Your task to perform on an android device: turn off translation in the chrome app Image 0: 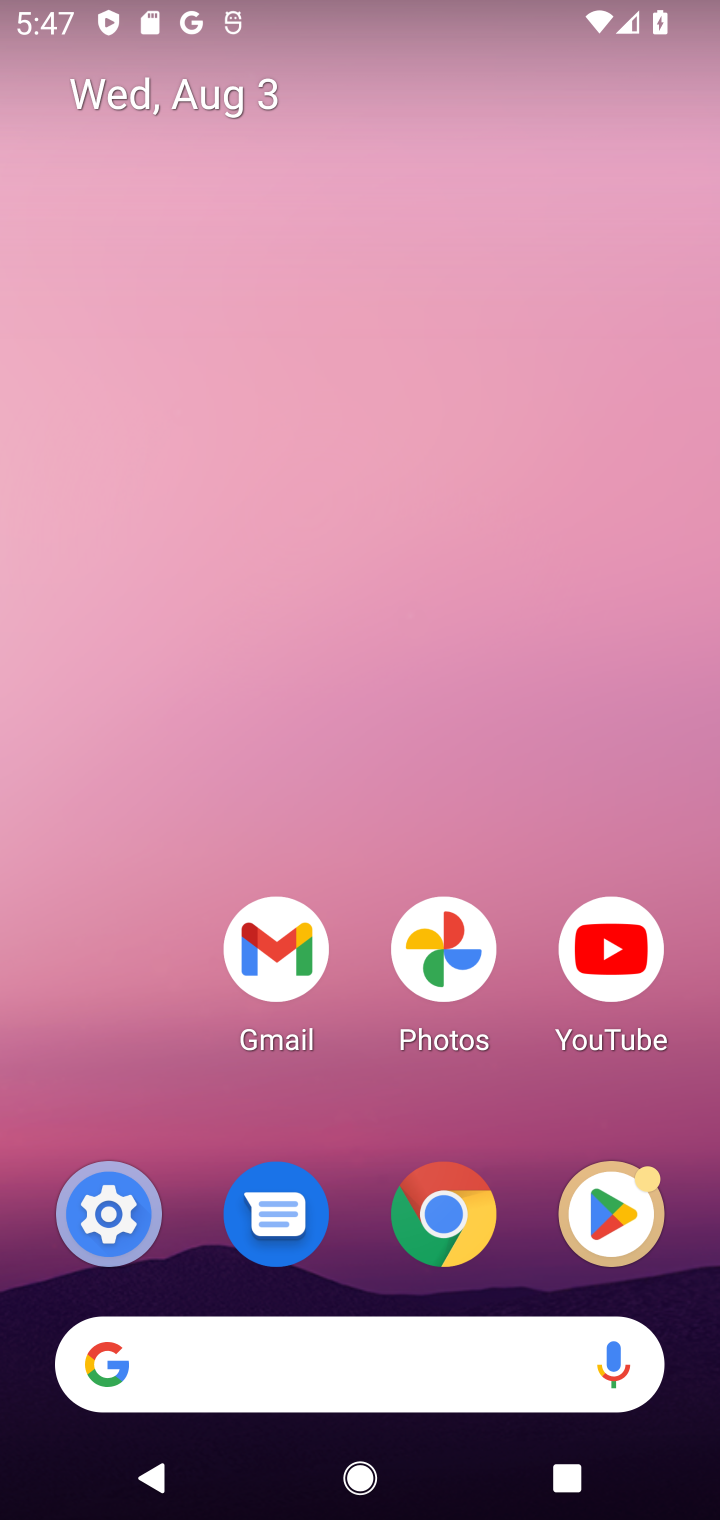
Step 0: click (473, 1208)
Your task to perform on an android device: turn off translation in the chrome app Image 1: 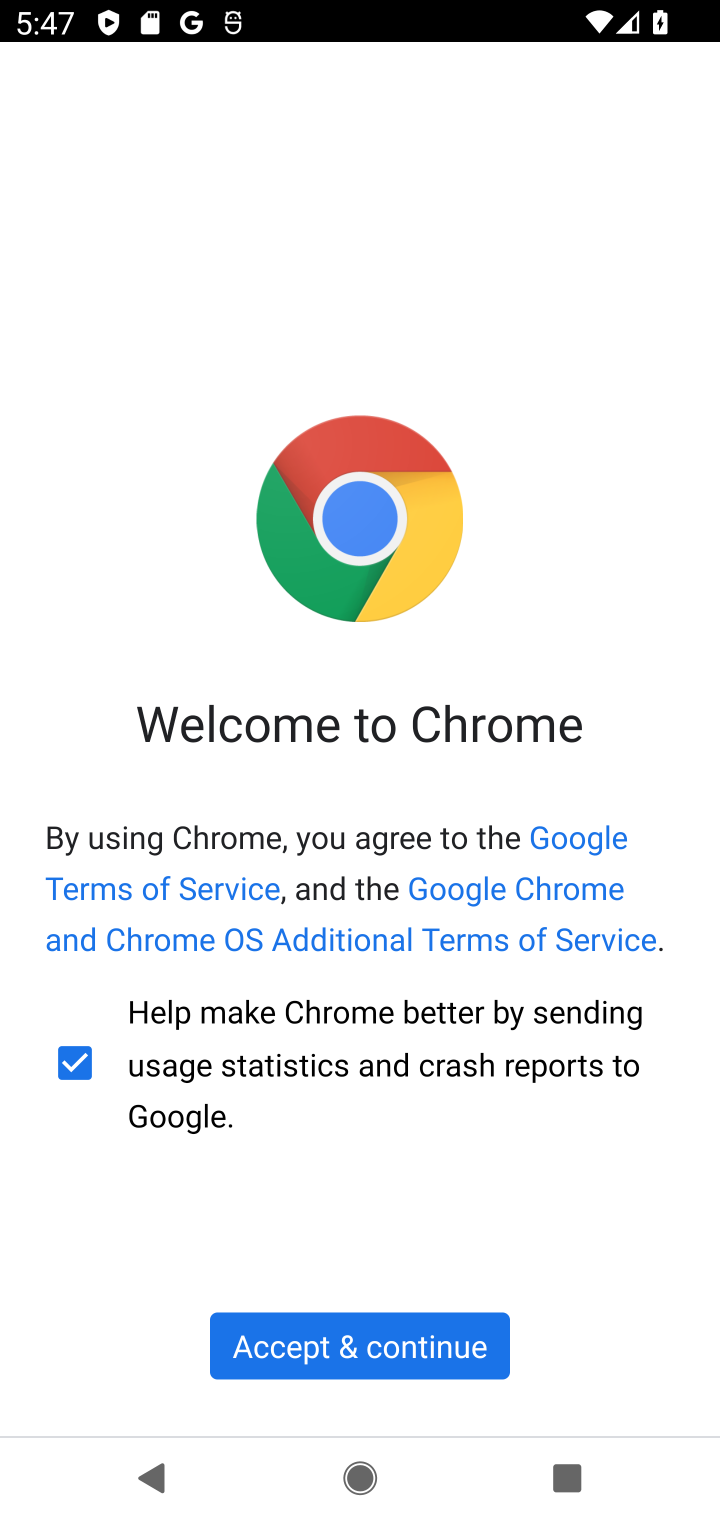
Step 1: click (372, 1357)
Your task to perform on an android device: turn off translation in the chrome app Image 2: 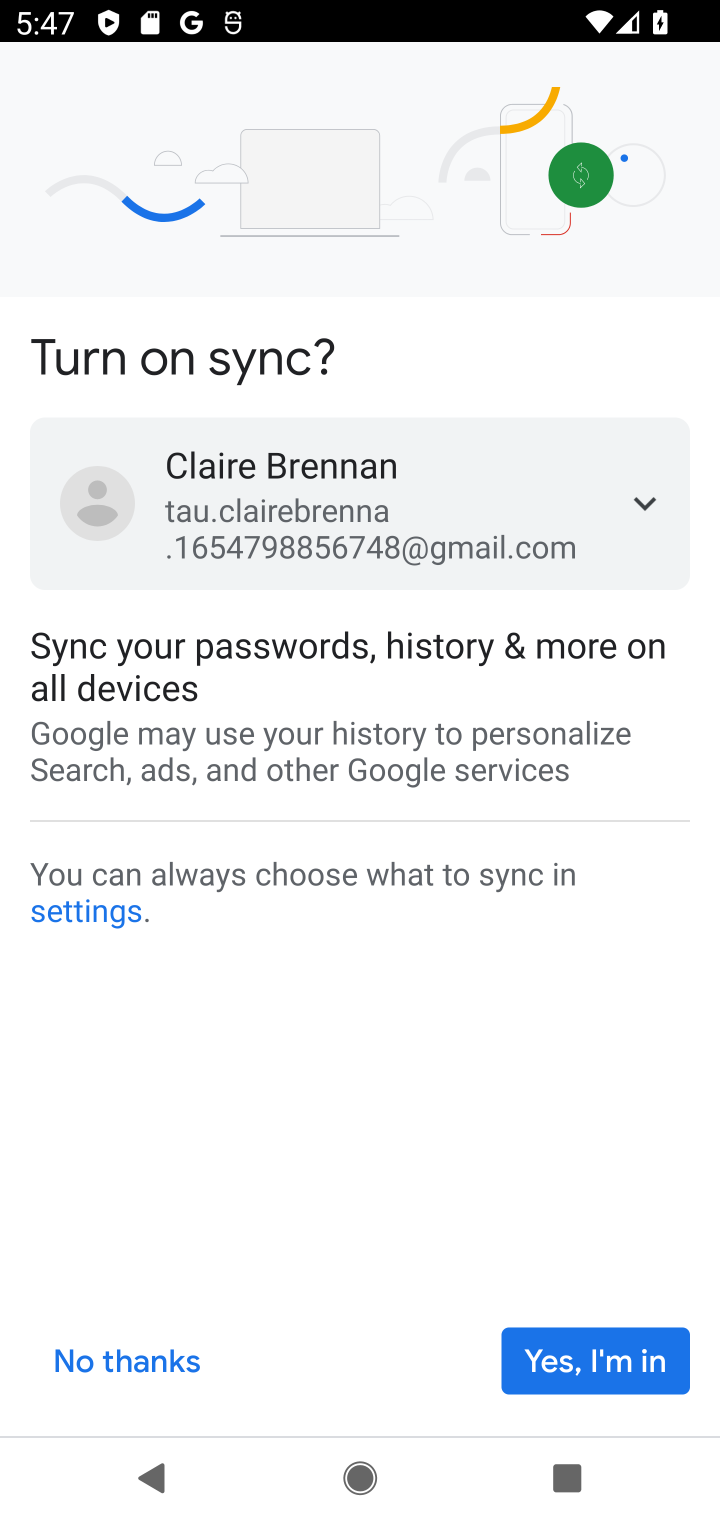
Step 2: click (555, 1362)
Your task to perform on an android device: turn off translation in the chrome app Image 3: 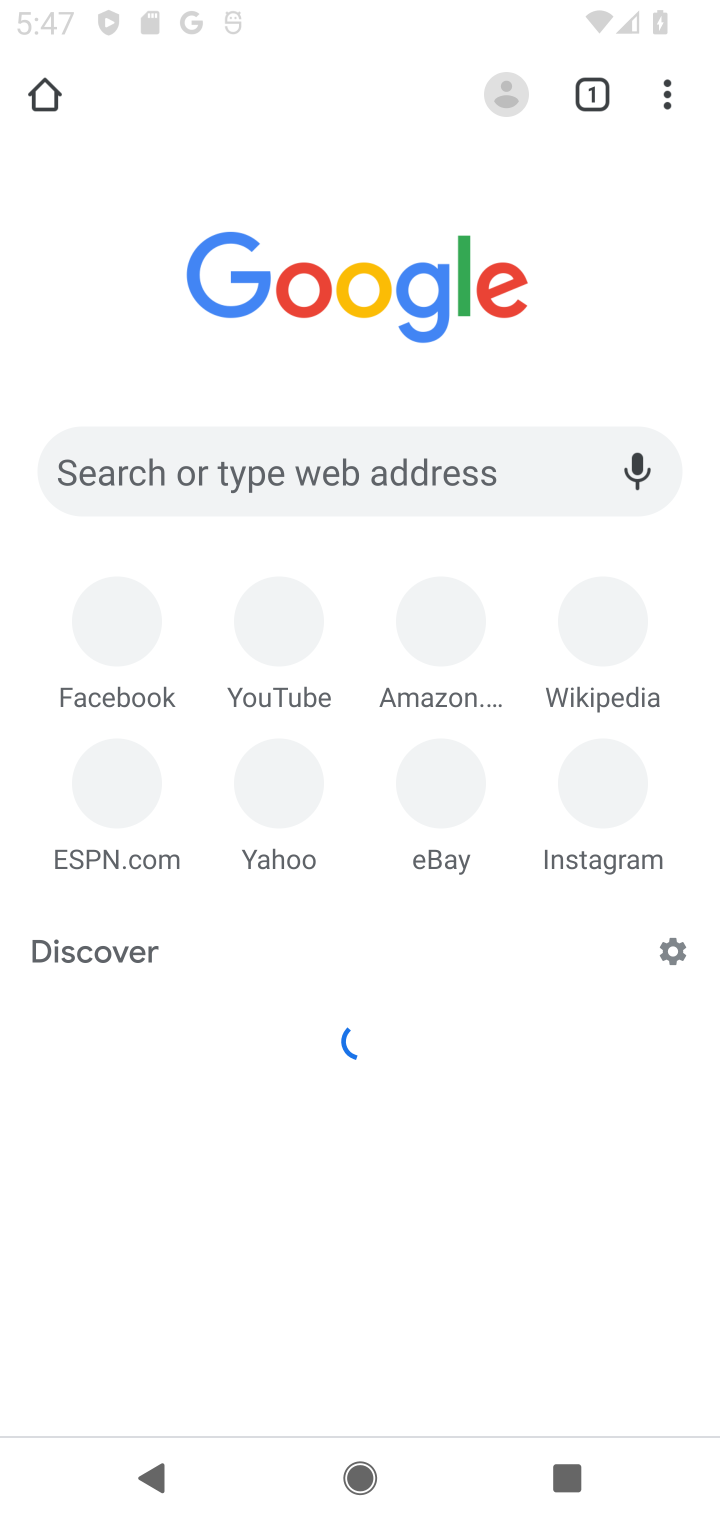
Step 3: click (555, 1362)
Your task to perform on an android device: turn off translation in the chrome app Image 4: 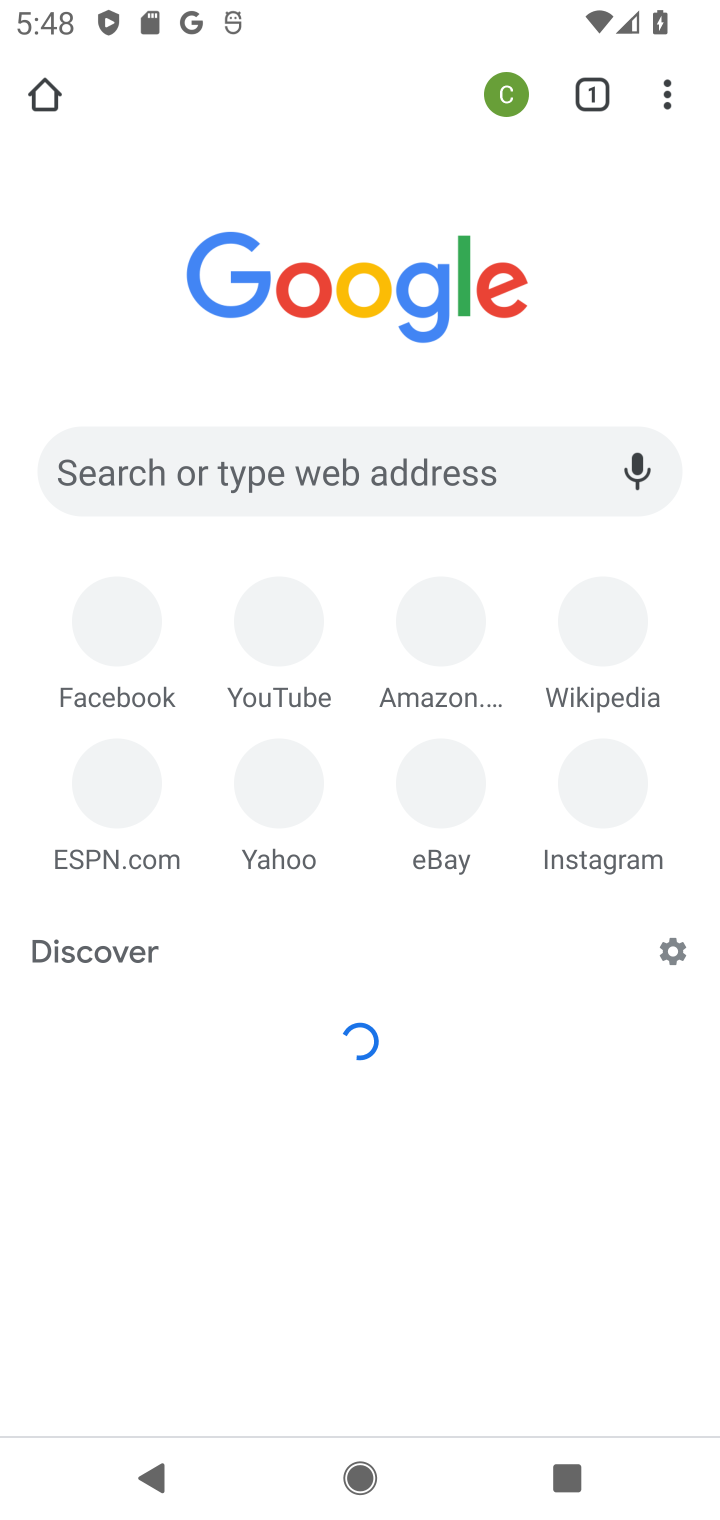
Step 4: click (672, 92)
Your task to perform on an android device: turn off translation in the chrome app Image 5: 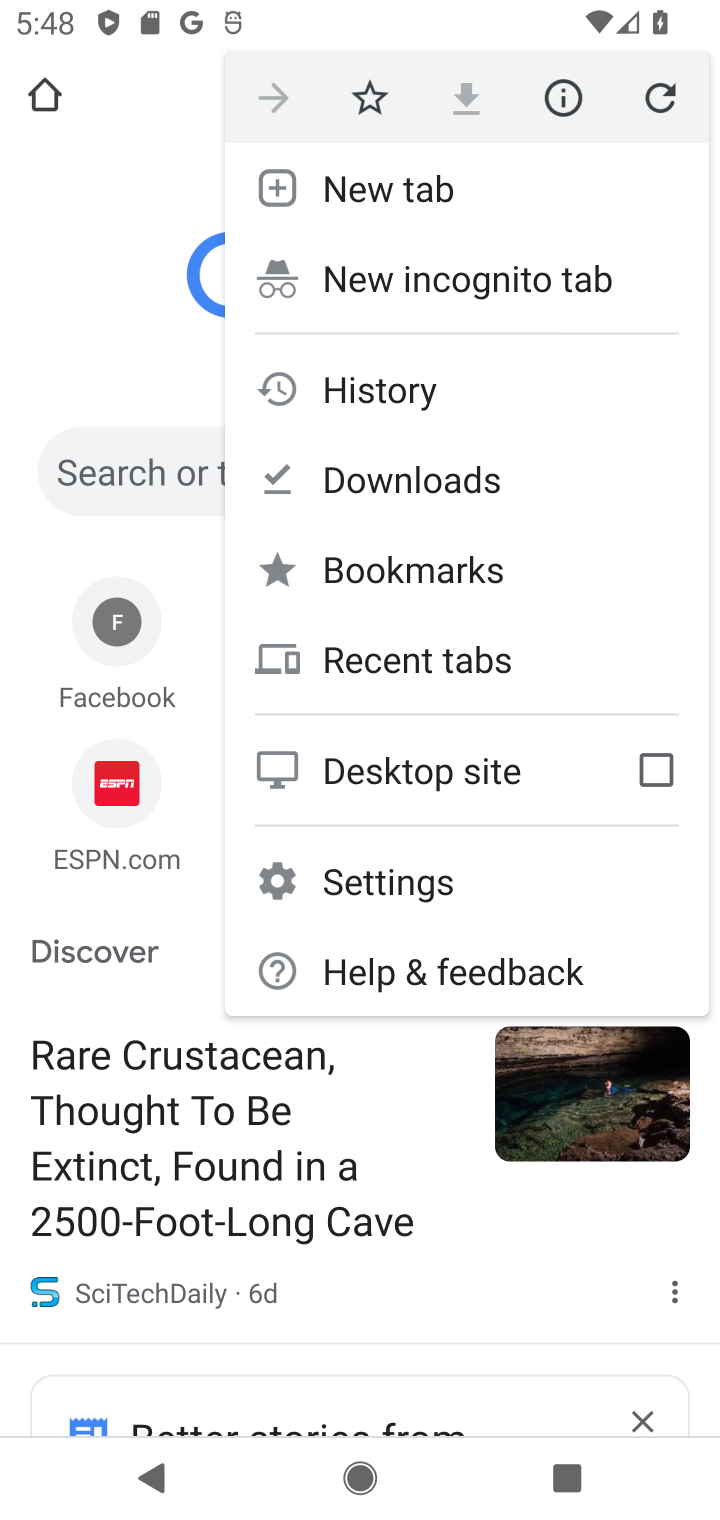
Step 5: click (373, 873)
Your task to perform on an android device: turn off translation in the chrome app Image 6: 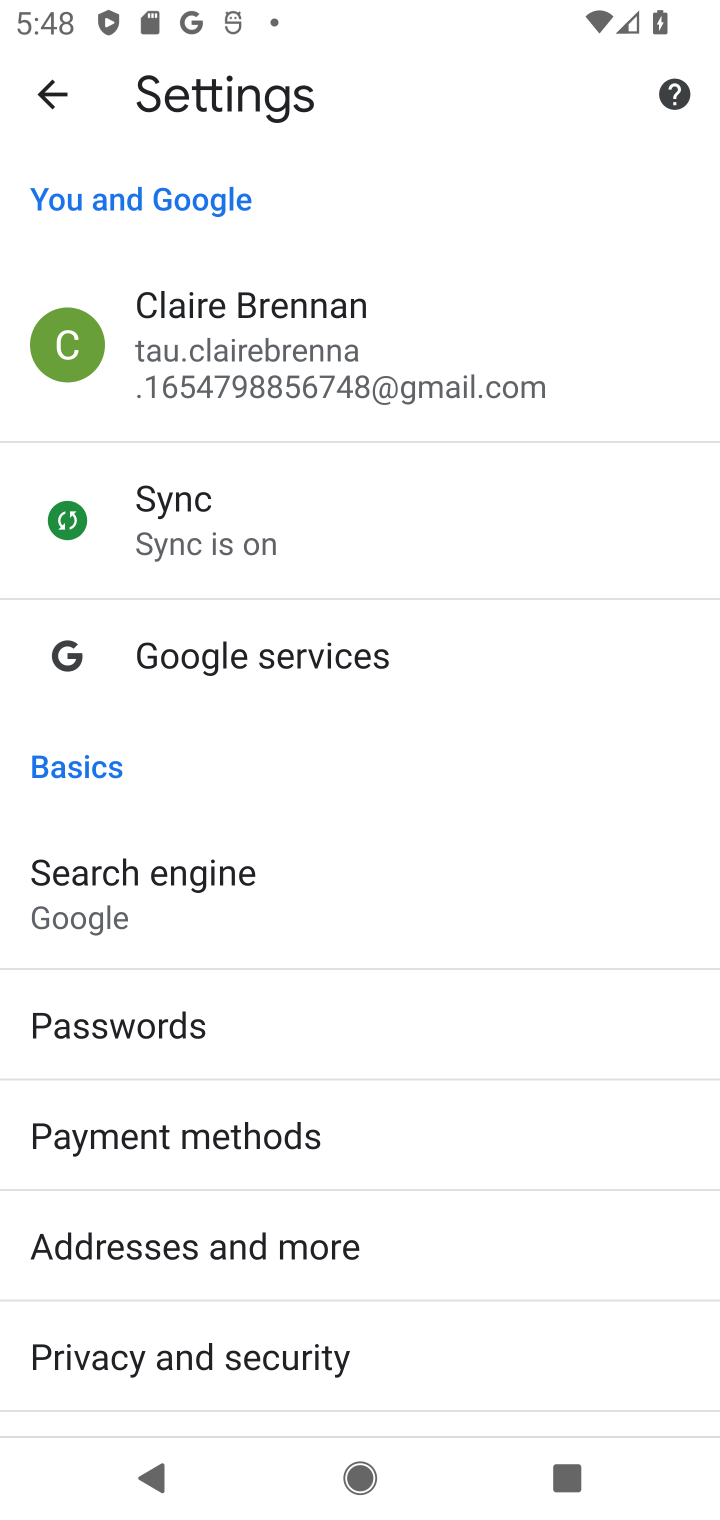
Step 6: drag from (224, 1309) to (206, 679)
Your task to perform on an android device: turn off translation in the chrome app Image 7: 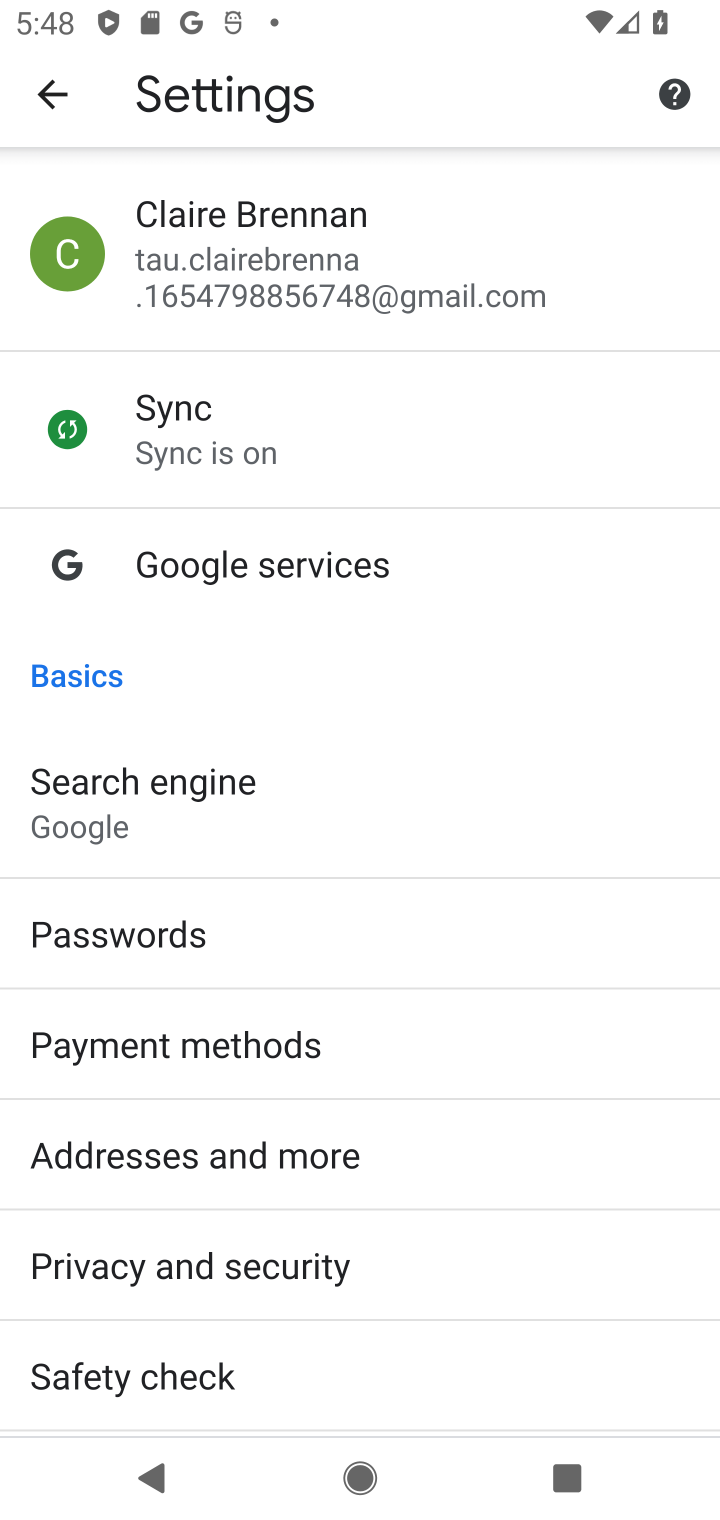
Step 7: drag from (240, 729) to (232, 623)
Your task to perform on an android device: turn off translation in the chrome app Image 8: 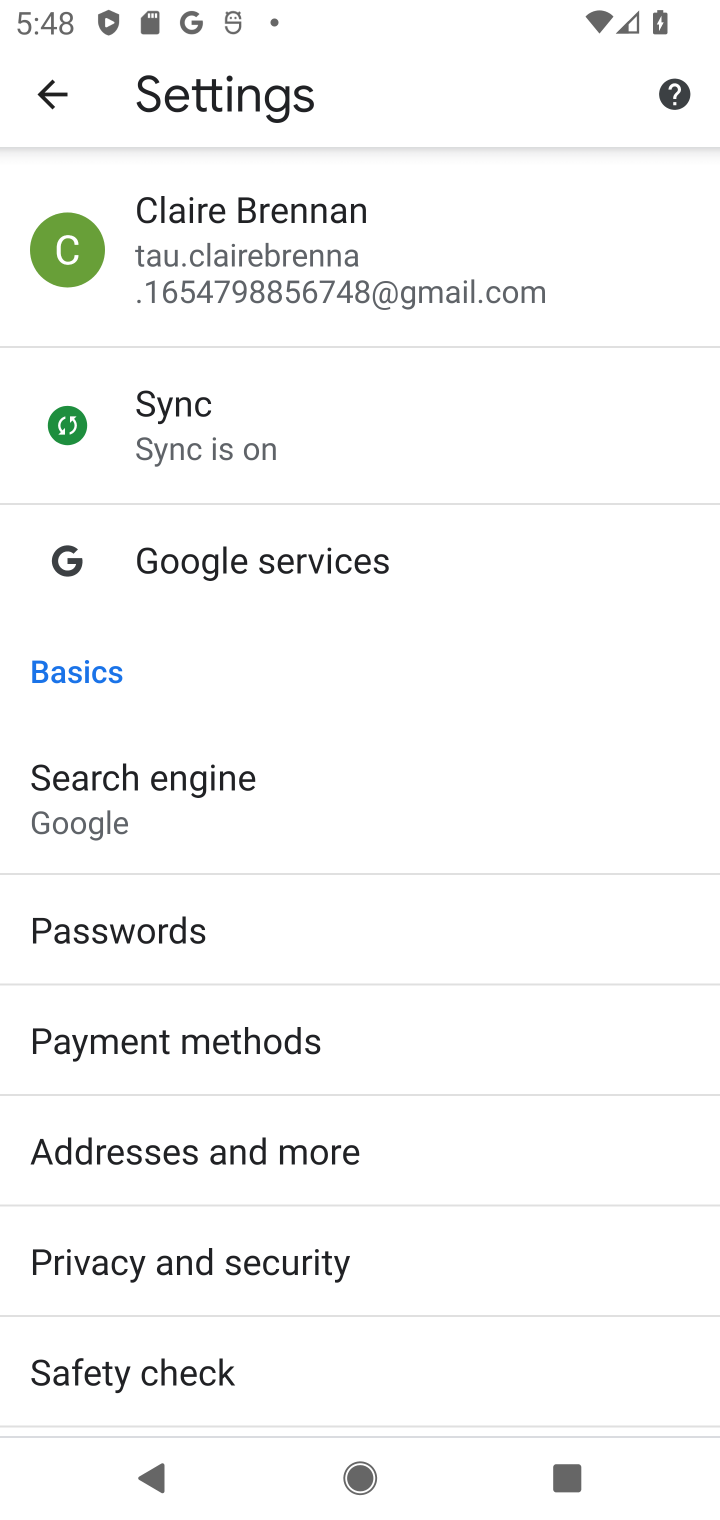
Step 8: drag from (264, 1382) to (173, 707)
Your task to perform on an android device: turn off translation in the chrome app Image 9: 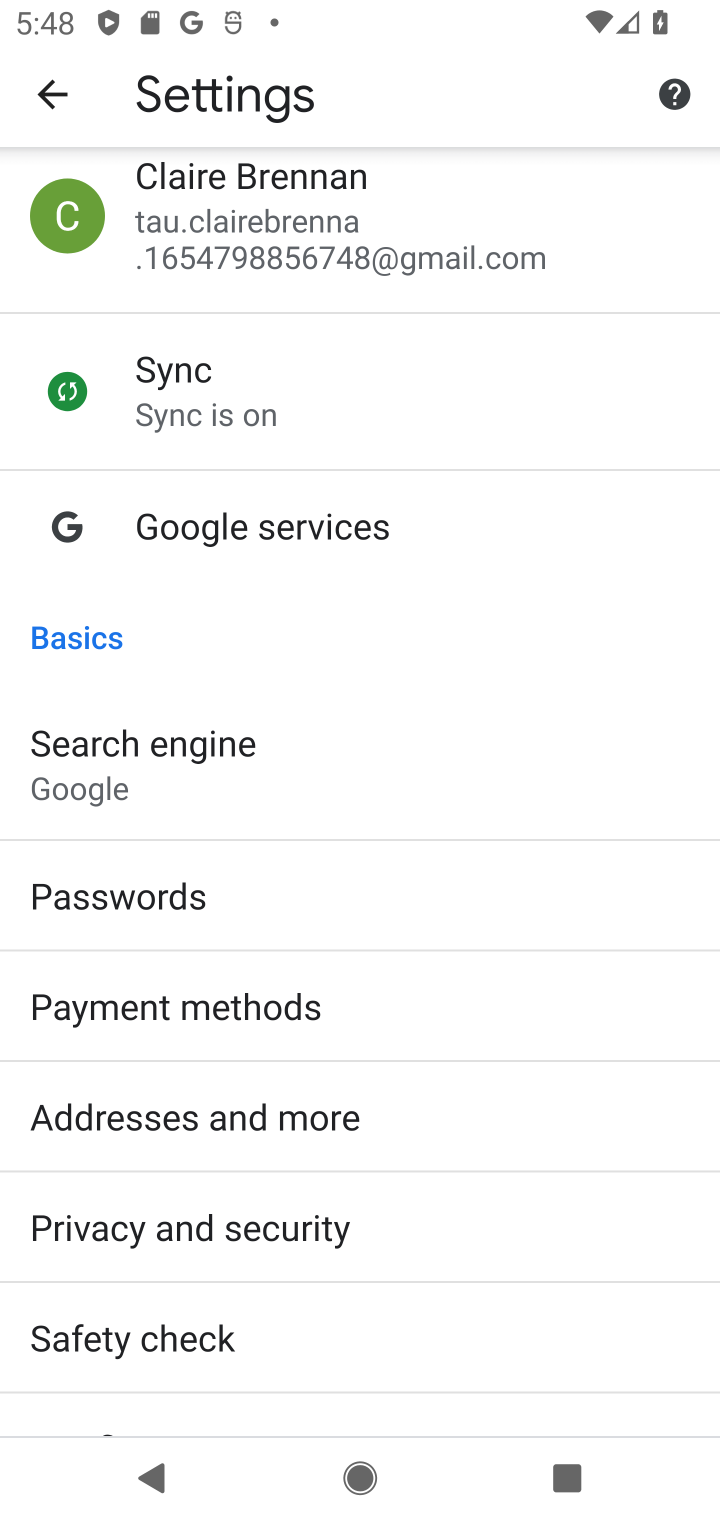
Step 9: drag from (260, 1243) to (259, 203)
Your task to perform on an android device: turn off translation in the chrome app Image 10: 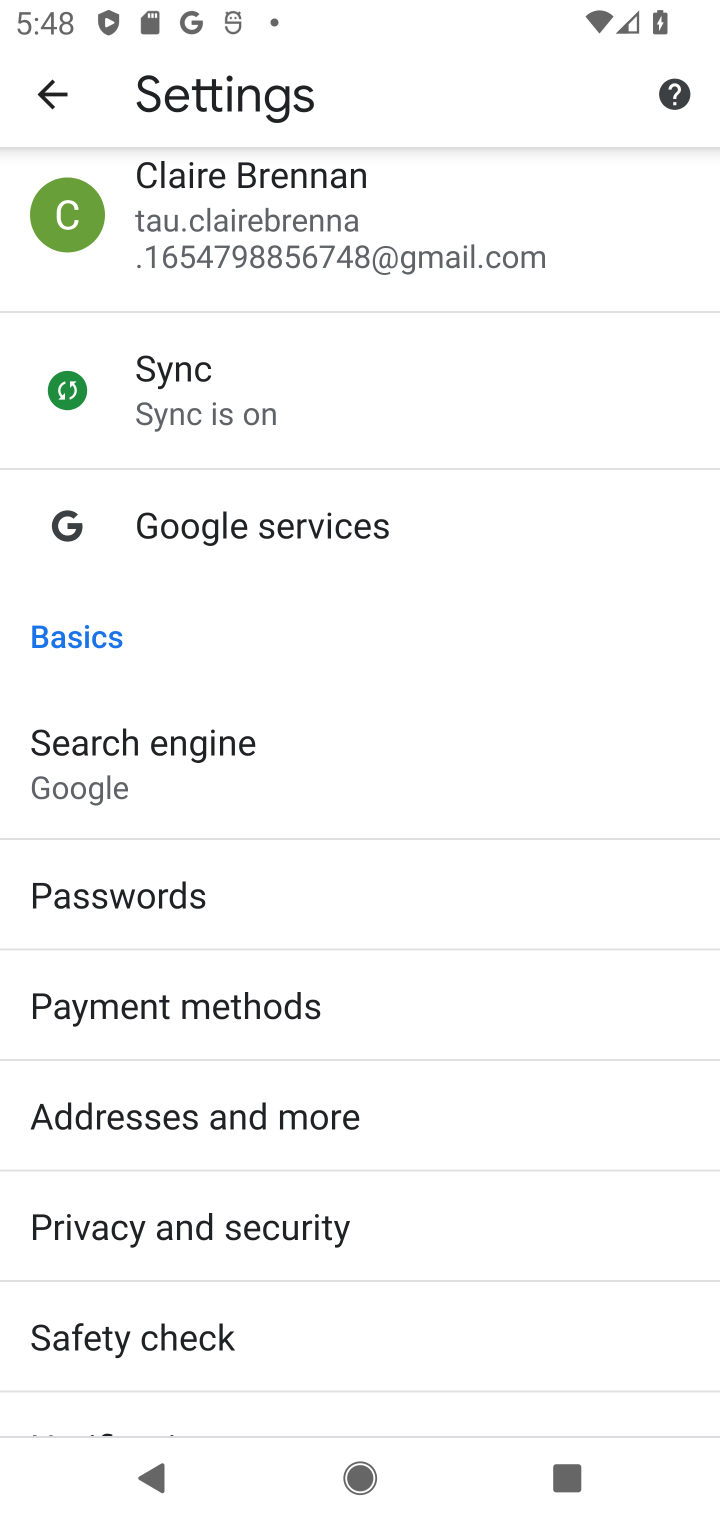
Step 10: drag from (375, 1005) to (468, 2)
Your task to perform on an android device: turn off translation in the chrome app Image 11: 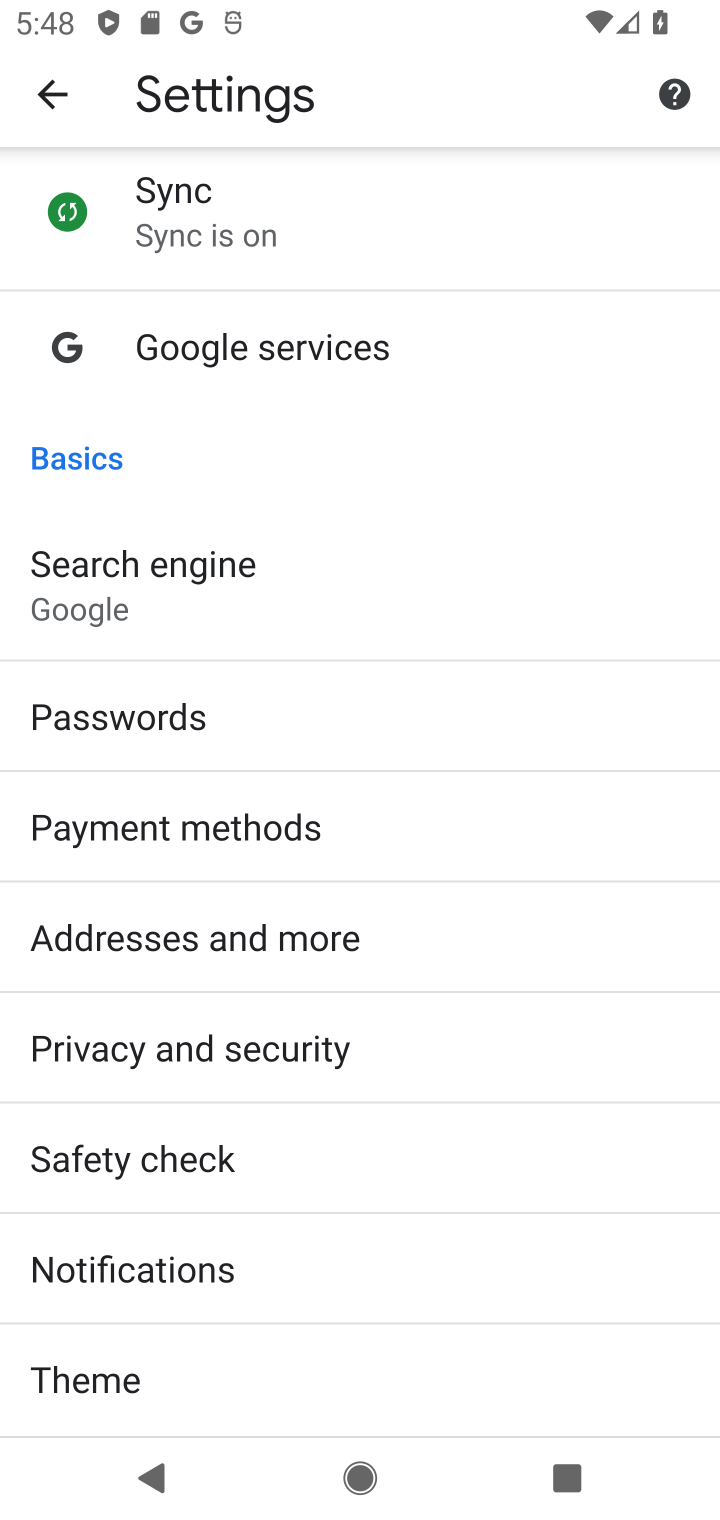
Step 11: drag from (328, 1266) to (328, 397)
Your task to perform on an android device: turn off translation in the chrome app Image 12: 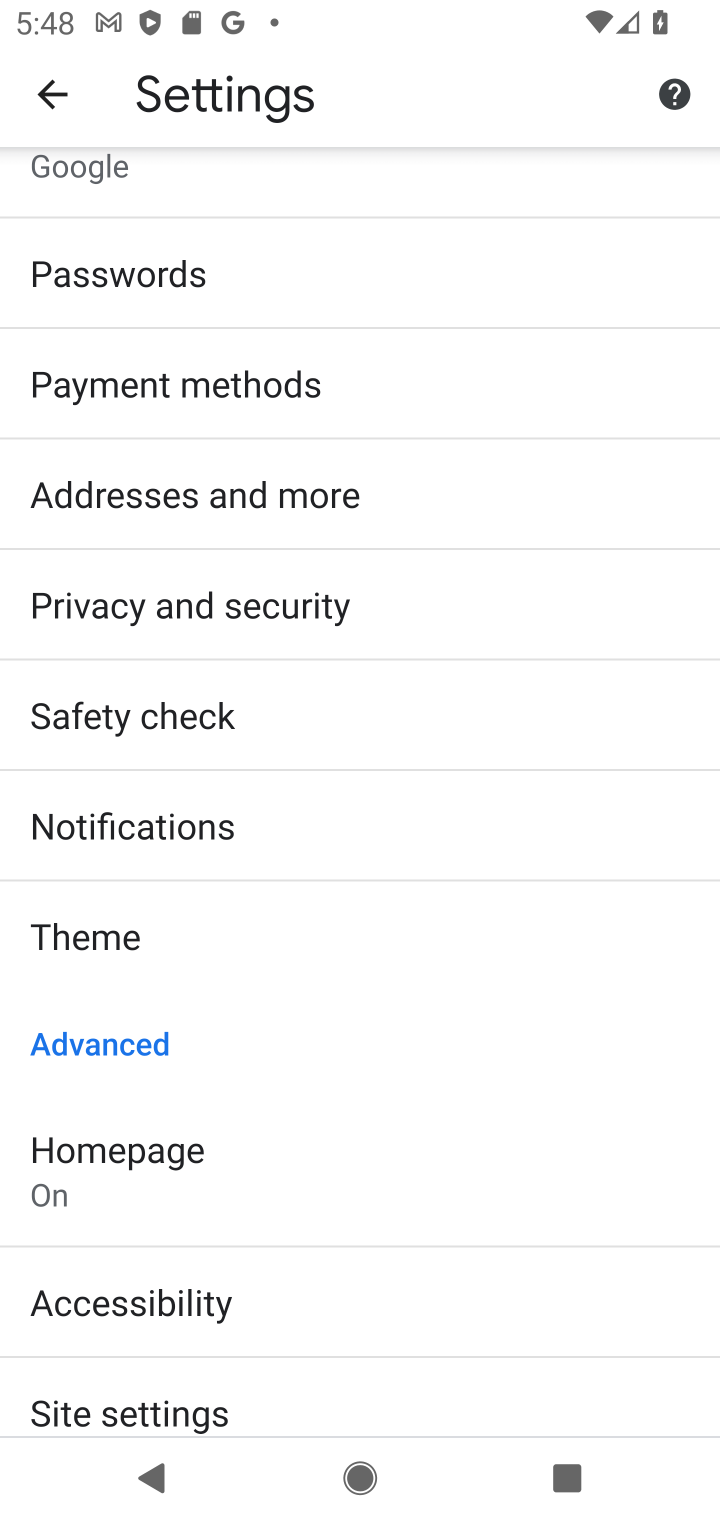
Step 12: drag from (258, 1332) to (284, 704)
Your task to perform on an android device: turn off translation in the chrome app Image 13: 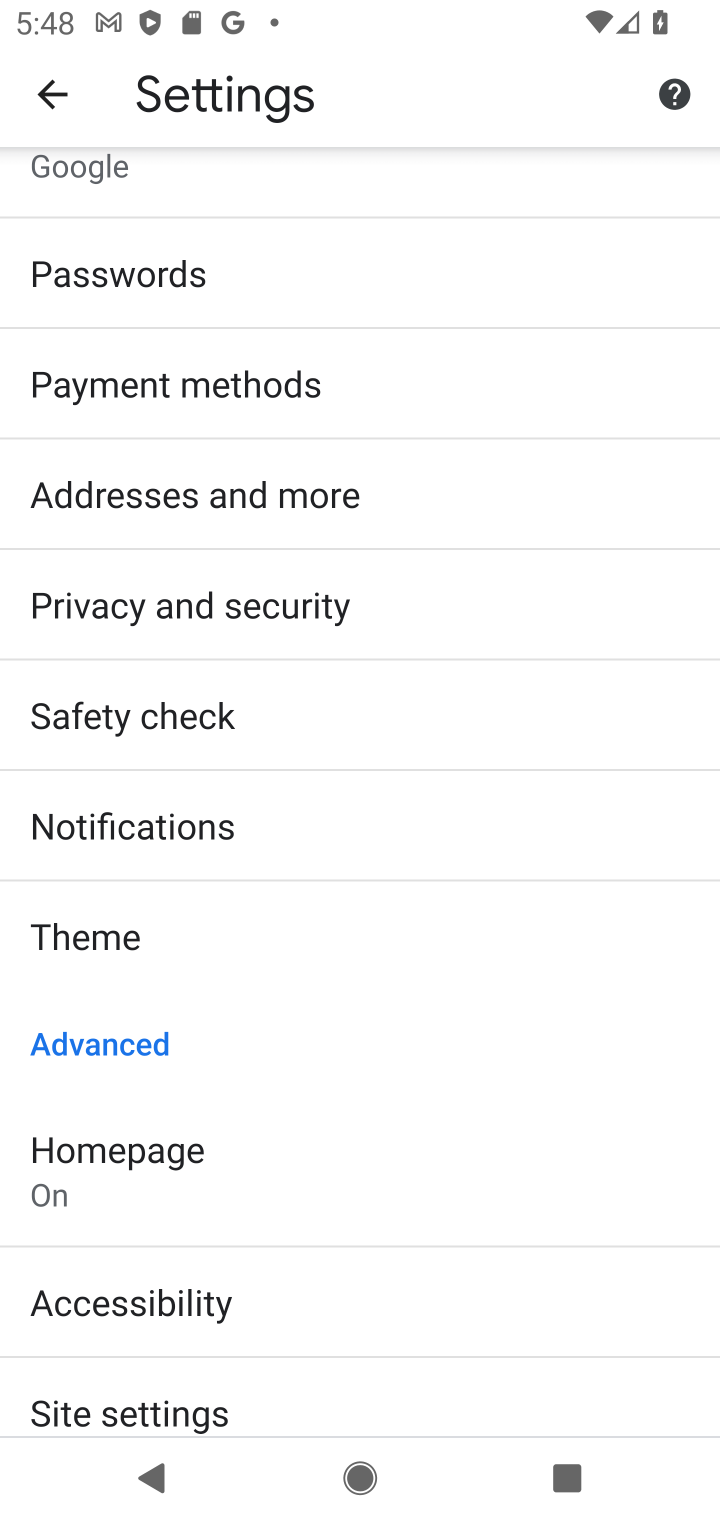
Step 13: drag from (384, 1286) to (389, 196)
Your task to perform on an android device: turn off translation in the chrome app Image 14: 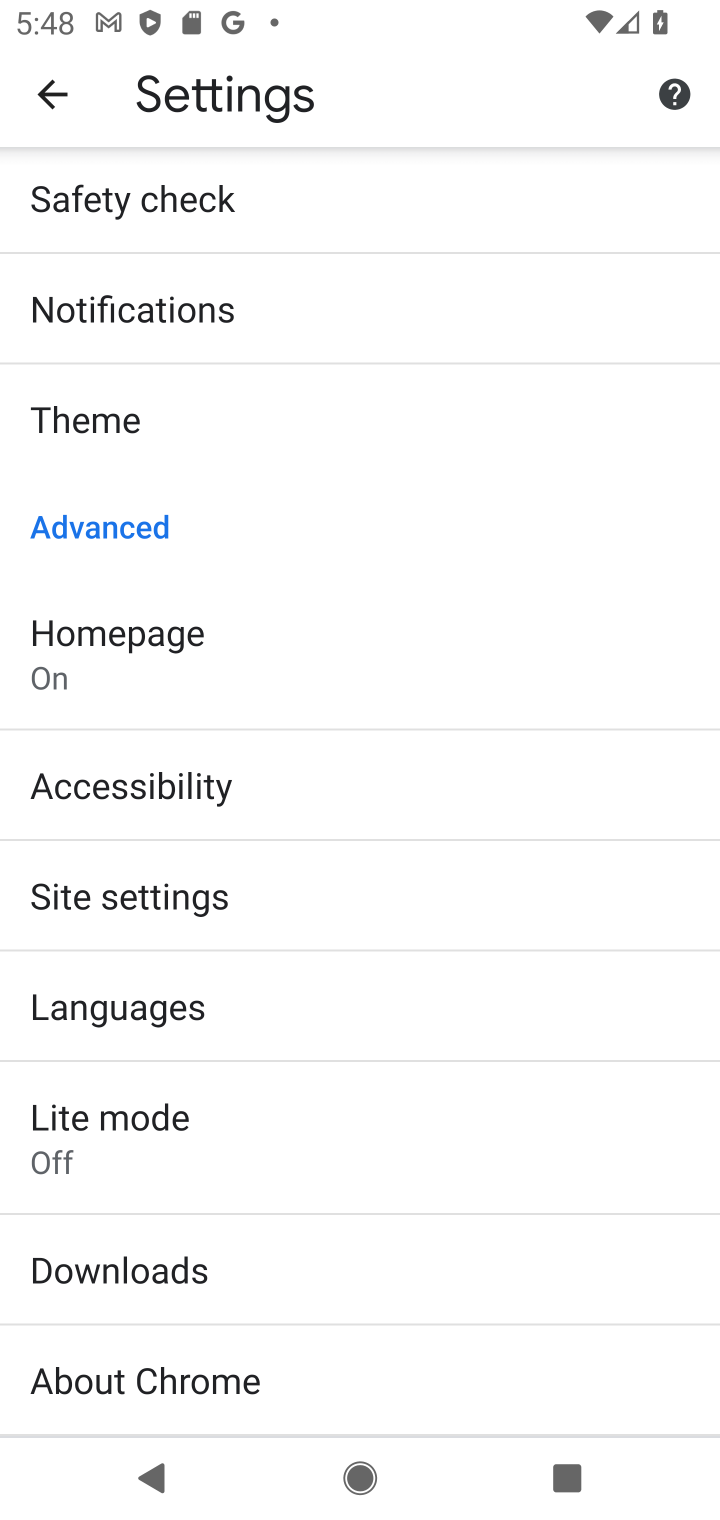
Step 14: click (197, 1016)
Your task to perform on an android device: turn off translation in the chrome app Image 15: 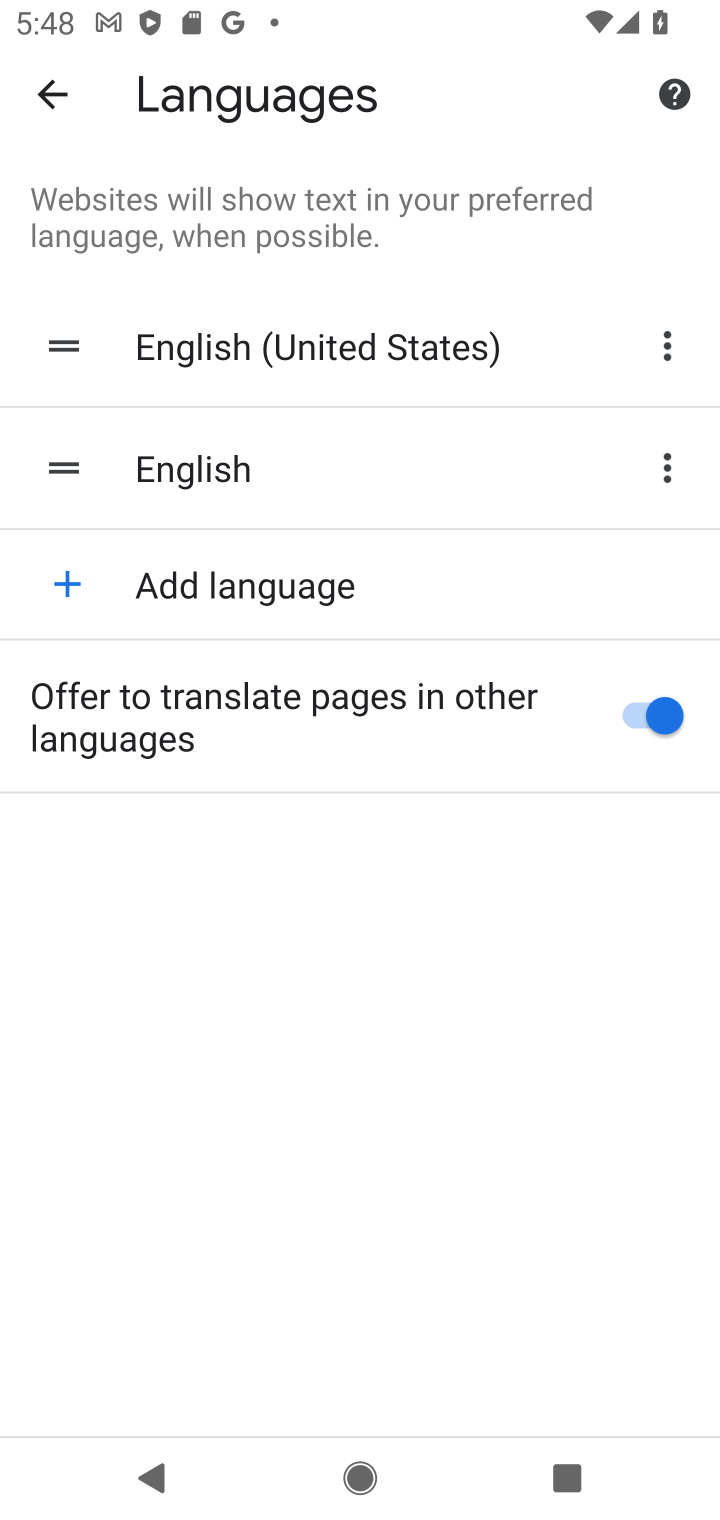
Step 15: click (646, 716)
Your task to perform on an android device: turn off translation in the chrome app Image 16: 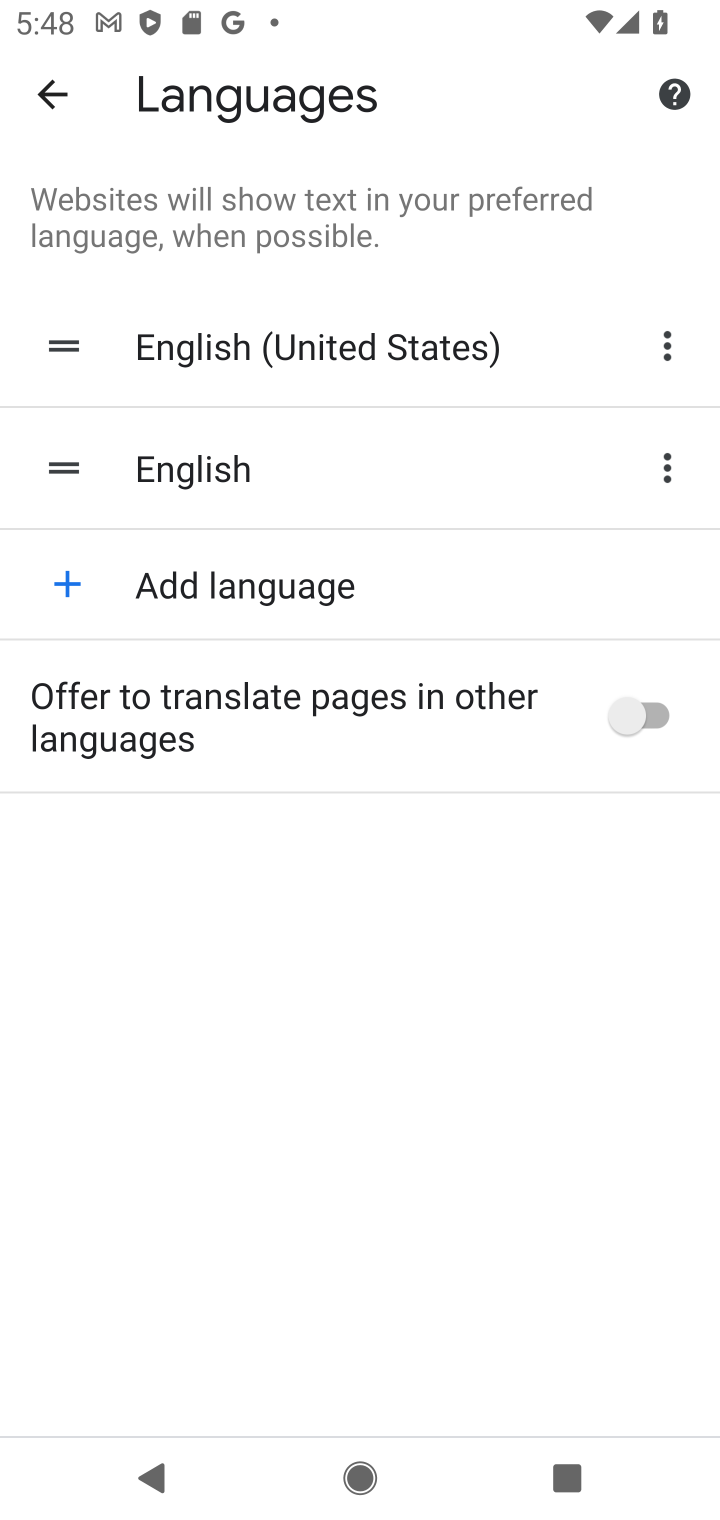
Step 16: task complete